Your task to perform on an android device: Go to Amazon Image 0: 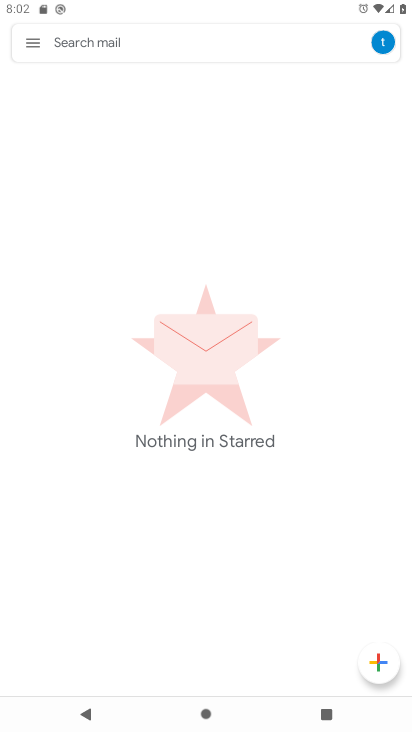
Step 0: press home button
Your task to perform on an android device: Go to Amazon Image 1: 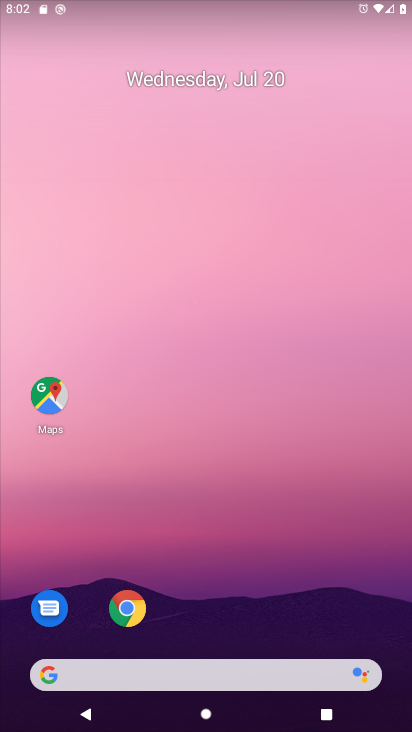
Step 1: drag from (164, 662) to (162, 207)
Your task to perform on an android device: Go to Amazon Image 2: 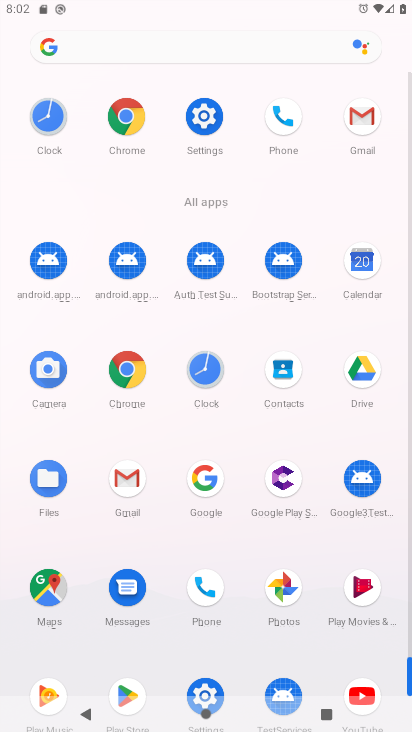
Step 2: click (197, 368)
Your task to perform on an android device: Go to Amazon Image 3: 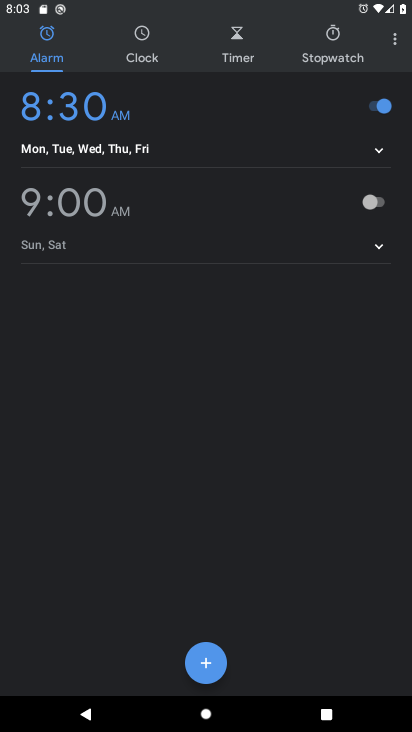
Step 3: press home button
Your task to perform on an android device: Go to Amazon Image 4: 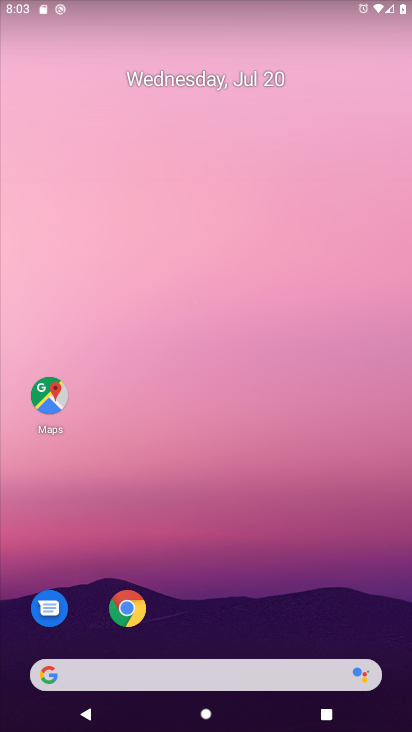
Step 4: click (117, 601)
Your task to perform on an android device: Go to Amazon Image 5: 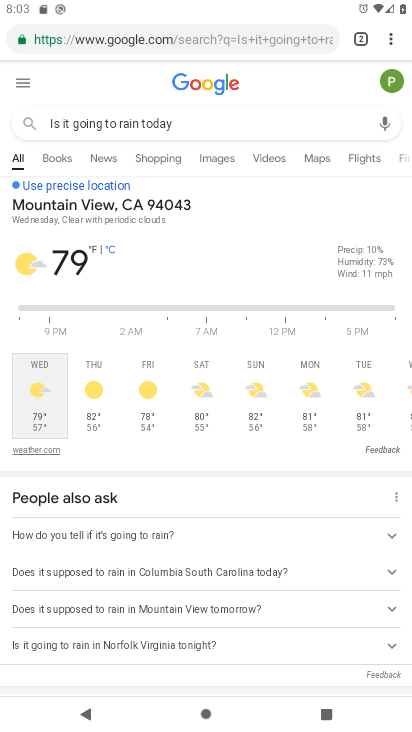
Step 5: click (395, 34)
Your task to perform on an android device: Go to Amazon Image 6: 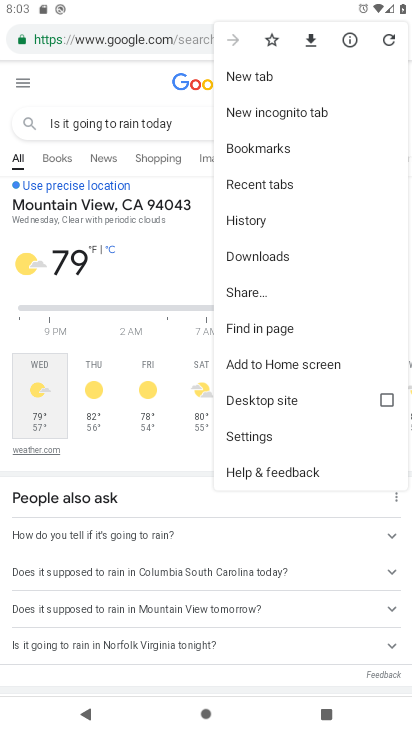
Step 6: click (264, 82)
Your task to perform on an android device: Go to Amazon Image 7: 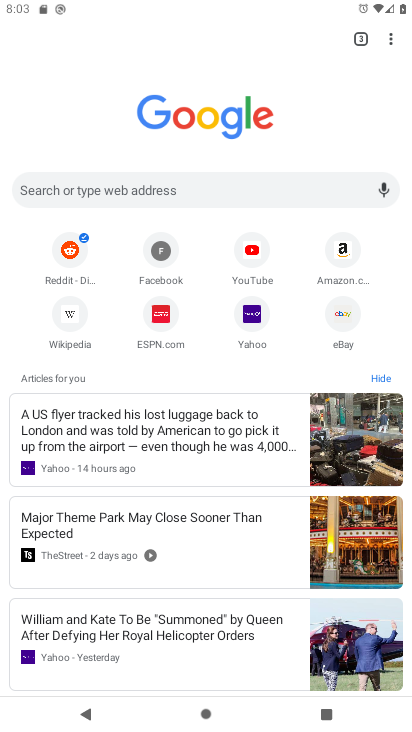
Step 7: click (341, 251)
Your task to perform on an android device: Go to Amazon Image 8: 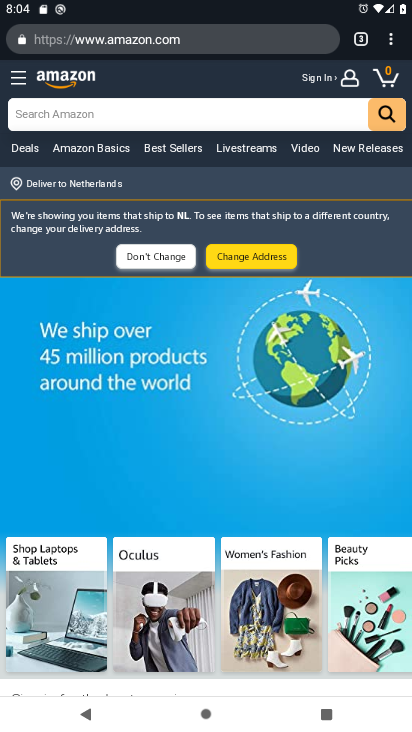
Step 8: task complete